Your task to perform on an android device: open app "Flipkart Online Shopping App" Image 0: 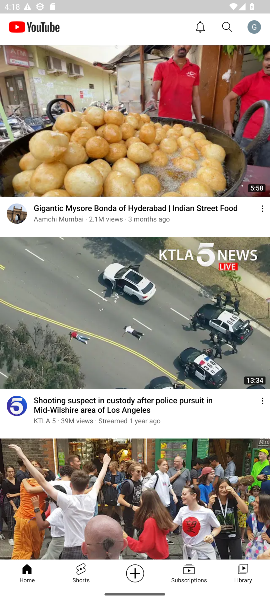
Step 0: press home button
Your task to perform on an android device: open app "Flipkart Online Shopping App" Image 1: 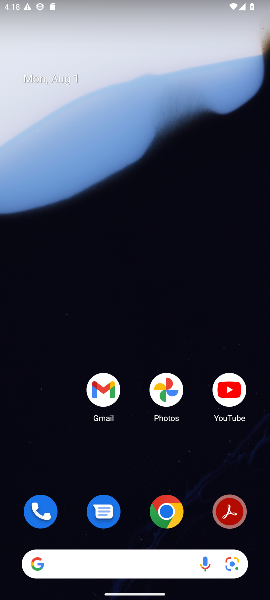
Step 1: drag from (108, 501) to (156, 34)
Your task to perform on an android device: open app "Flipkart Online Shopping App" Image 2: 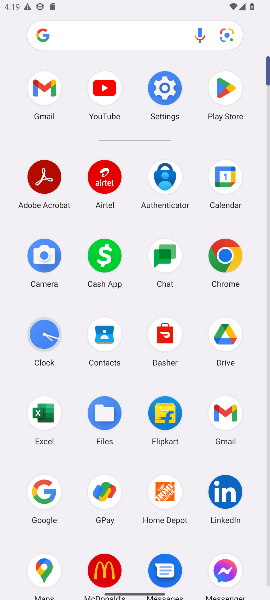
Step 2: click (224, 114)
Your task to perform on an android device: open app "Flipkart Online Shopping App" Image 3: 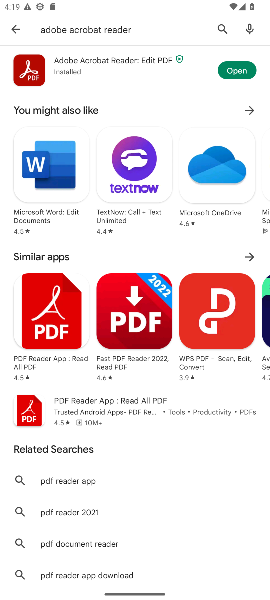
Step 3: click (17, 27)
Your task to perform on an android device: open app "Flipkart Online Shopping App" Image 4: 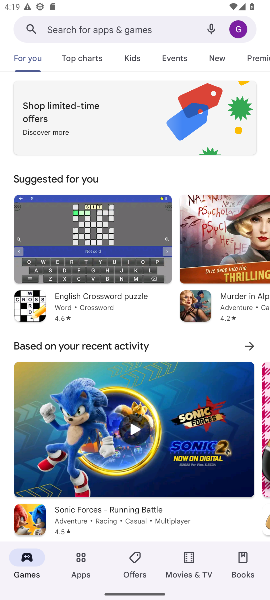
Step 4: click (84, 27)
Your task to perform on an android device: open app "Flipkart Online Shopping App" Image 5: 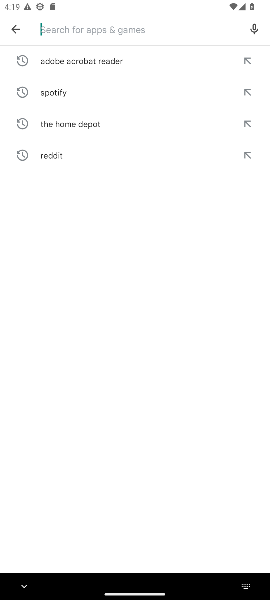
Step 5: type "flipkart online shopping "
Your task to perform on an android device: open app "Flipkart Online Shopping App" Image 6: 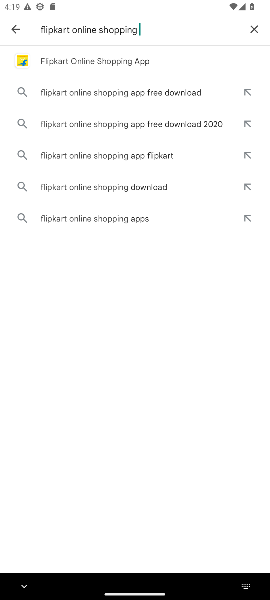
Step 6: click (100, 57)
Your task to perform on an android device: open app "Flipkart Online Shopping App" Image 7: 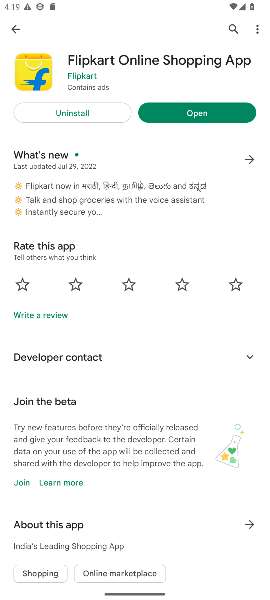
Step 7: click (185, 117)
Your task to perform on an android device: open app "Flipkart Online Shopping App" Image 8: 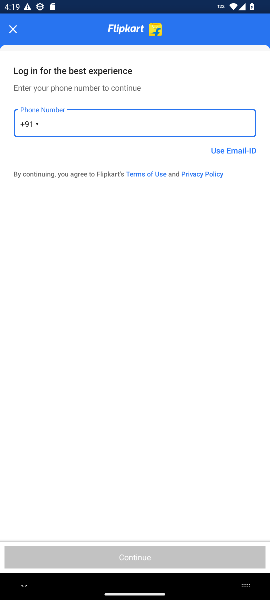
Step 8: task complete